Your task to perform on an android device: Go to wifi settings Image 0: 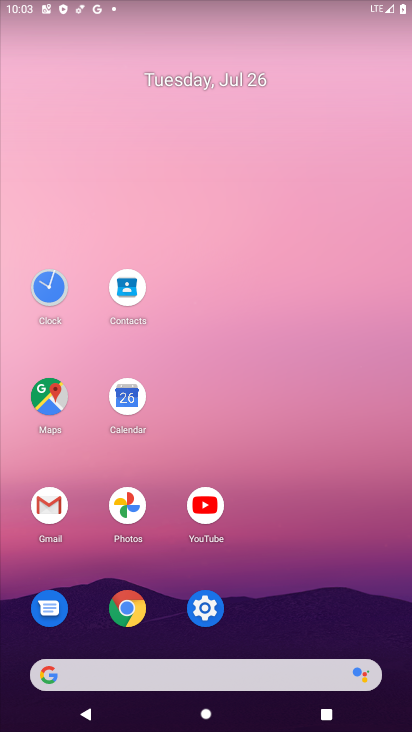
Step 0: click (202, 597)
Your task to perform on an android device: Go to wifi settings Image 1: 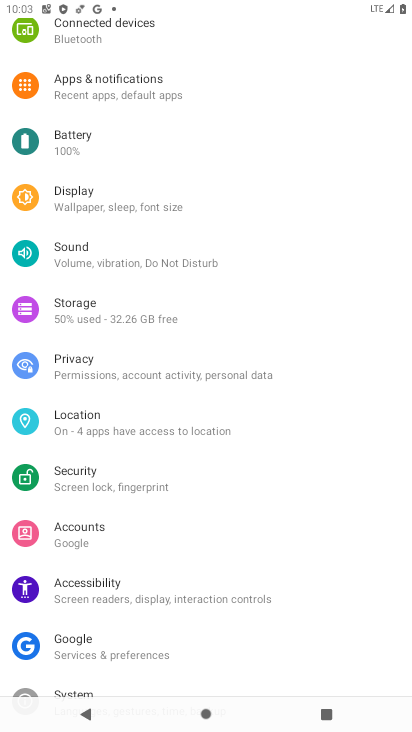
Step 1: drag from (251, 138) to (248, 565)
Your task to perform on an android device: Go to wifi settings Image 2: 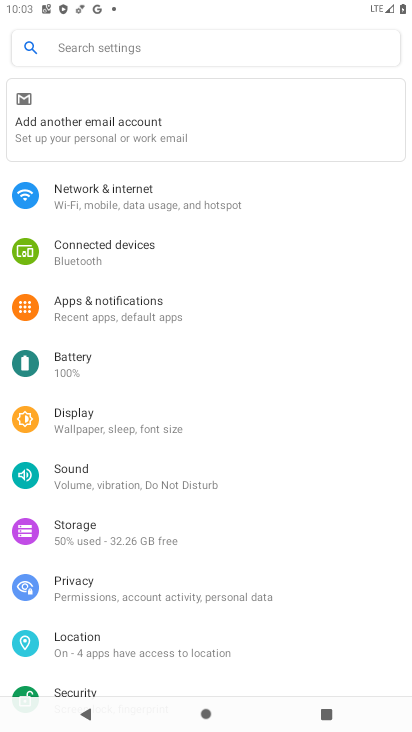
Step 2: click (109, 186)
Your task to perform on an android device: Go to wifi settings Image 3: 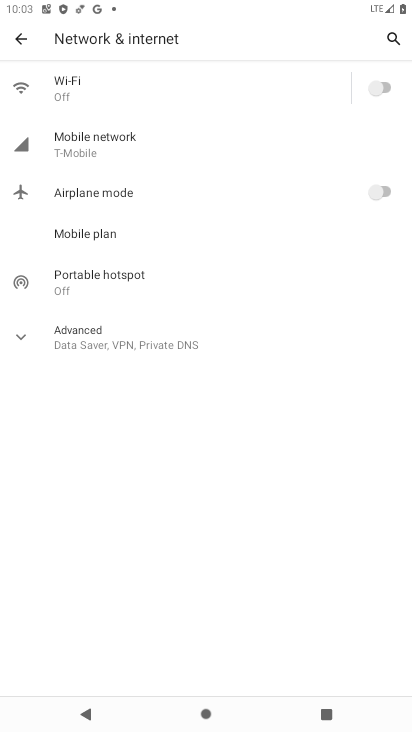
Step 3: click (65, 79)
Your task to perform on an android device: Go to wifi settings Image 4: 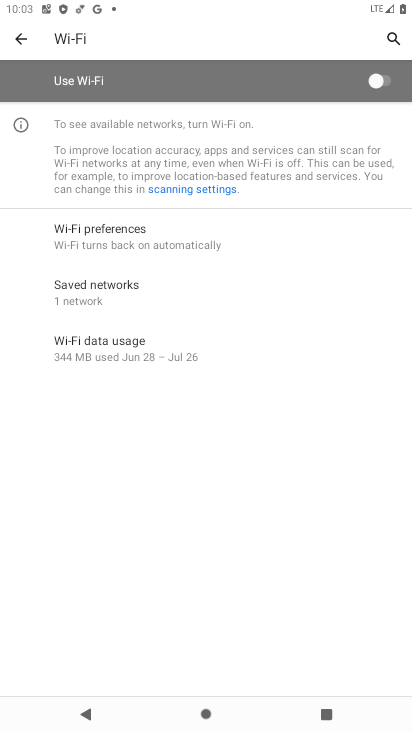
Step 4: task complete